Your task to perform on an android device: add a contact in the contacts app Image 0: 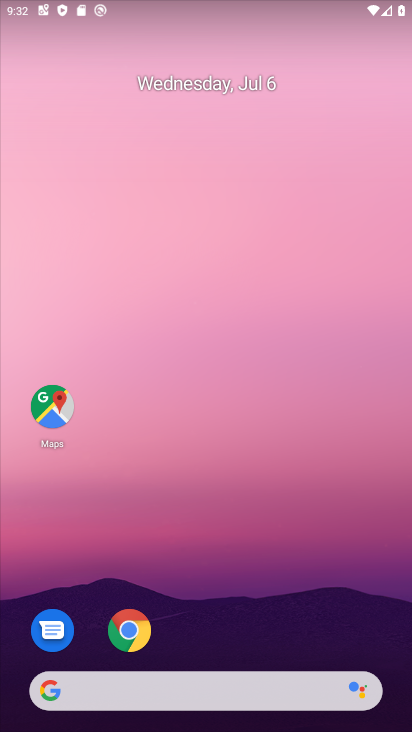
Step 0: drag from (373, 626) to (340, 106)
Your task to perform on an android device: add a contact in the contacts app Image 1: 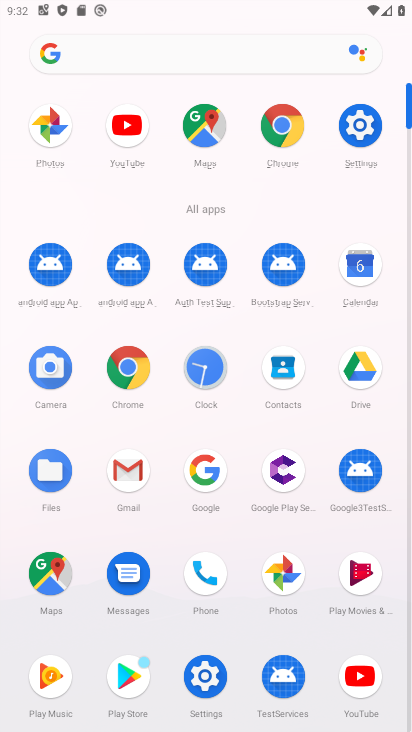
Step 1: click (282, 366)
Your task to perform on an android device: add a contact in the contacts app Image 2: 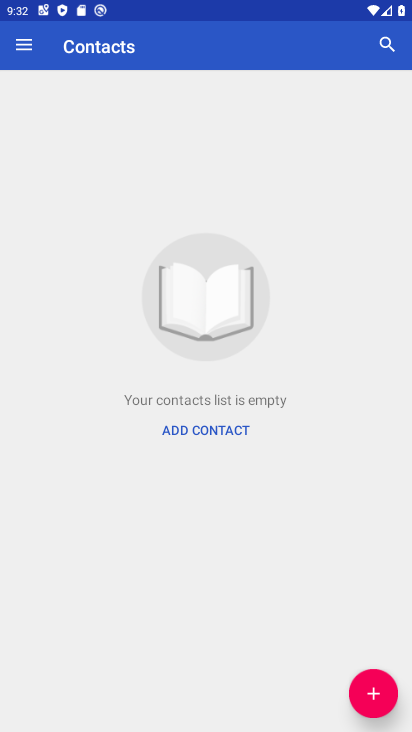
Step 2: click (370, 691)
Your task to perform on an android device: add a contact in the contacts app Image 3: 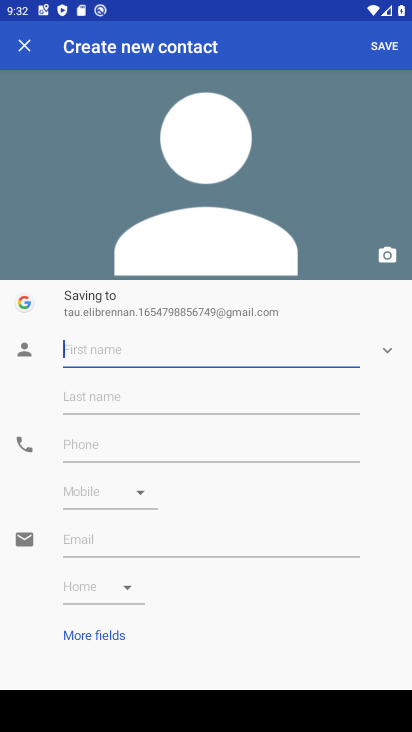
Step 3: type "kjfdsdfg"
Your task to perform on an android device: add a contact in the contacts app Image 4: 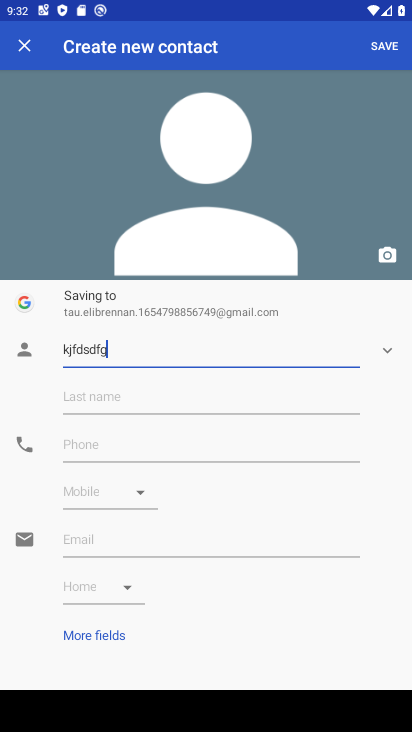
Step 4: click (90, 455)
Your task to perform on an android device: add a contact in the contacts app Image 5: 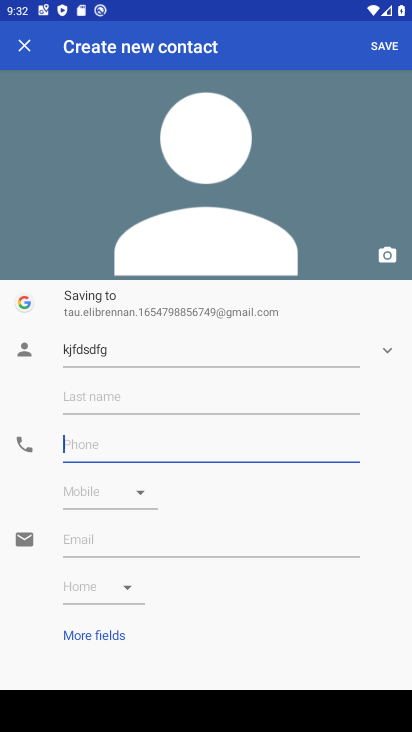
Step 5: type "87654456"
Your task to perform on an android device: add a contact in the contacts app Image 6: 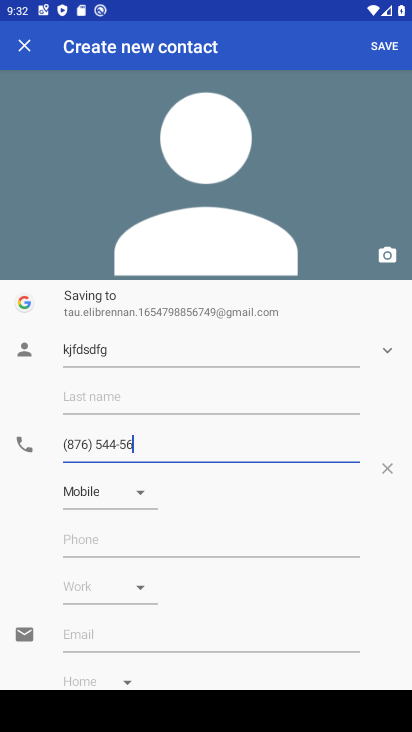
Step 6: click (136, 491)
Your task to perform on an android device: add a contact in the contacts app Image 7: 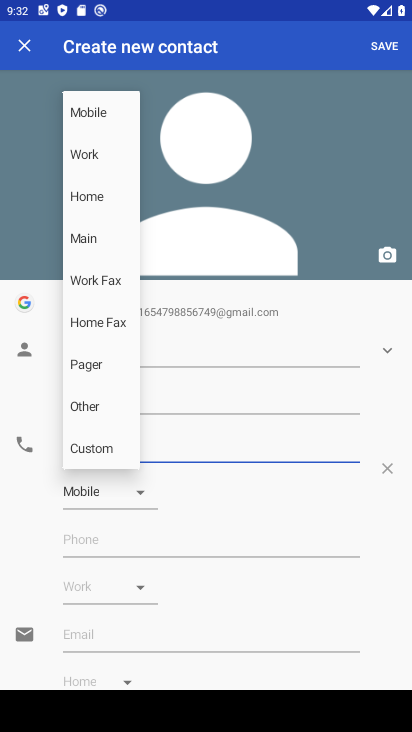
Step 7: click (83, 150)
Your task to perform on an android device: add a contact in the contacts app Image 8: 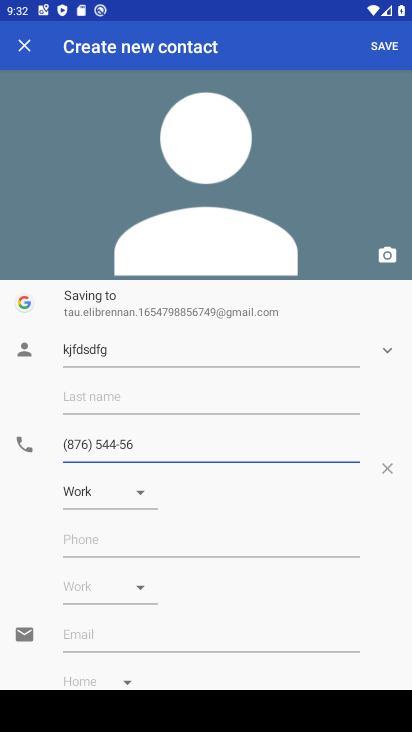
Step 8: click (385, 44)
Your task to perform on an android device: add a contact in the contacts app Image 9: 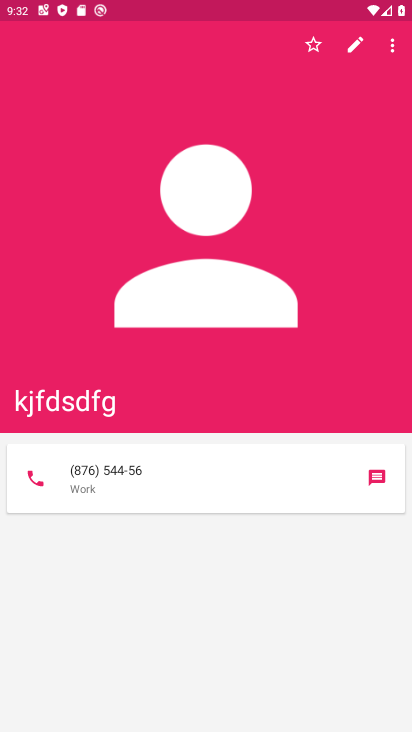
Step 9: task complete